Your task to perform on an android device: manage bookmarks in the chrome app Image 0: 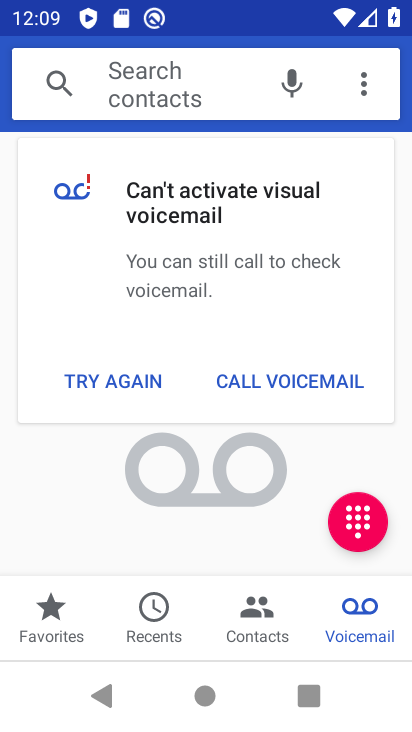
Step 0: press home button
Your task to perform on an android device: manage bookmarks in the chrome app Image 1: 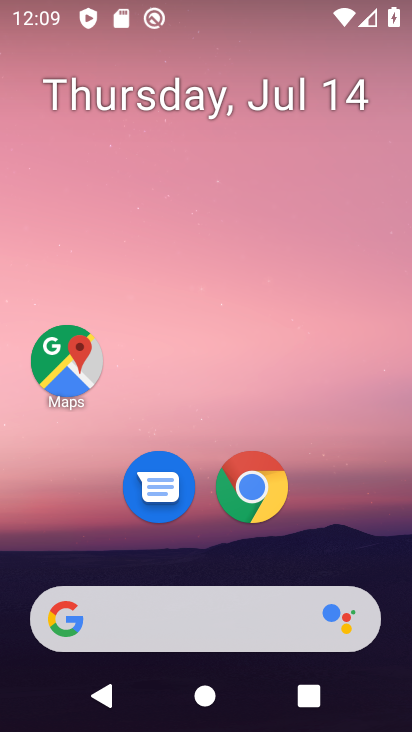
Step 1: drag from (178, 625) to (249, 2)
Your task to perform on an android device: manage bookmarks in the chrome app Image 2: 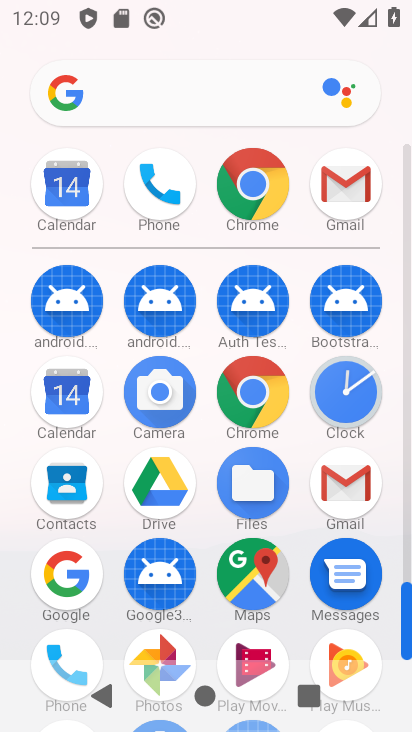
Step 2: click (249, 193)
Your task to perform on an android device: manage bookmarks in the chrome app Image 3: 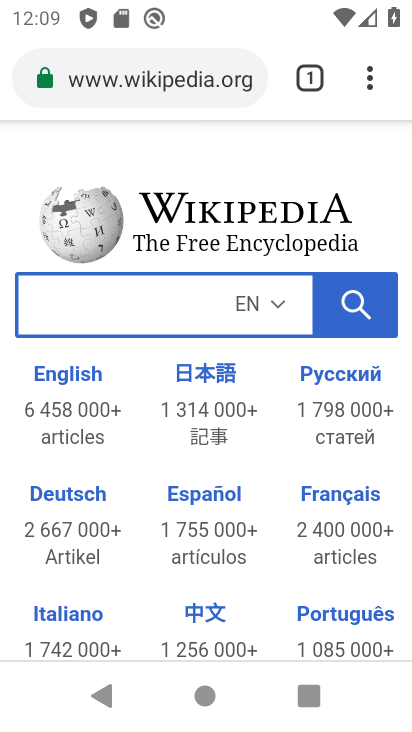
Step 3: click (370, 86)
Your task to perform on an android device: manage bookmarks in the chrome app Image 4: 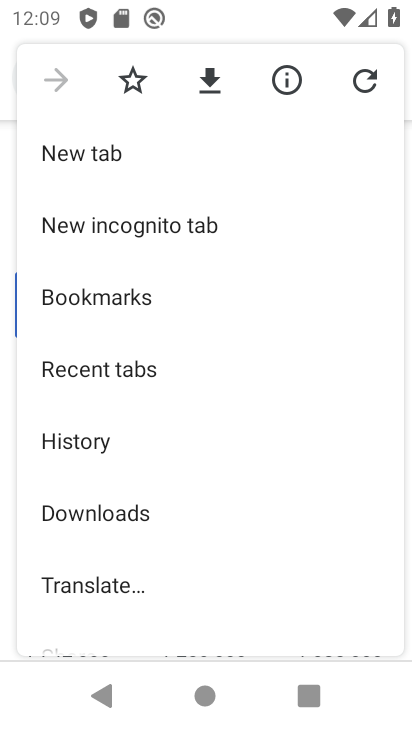
Step 4: click (121, 297)
Your task to perform on an android device: manage bookmarks in the chrome app Image 5: 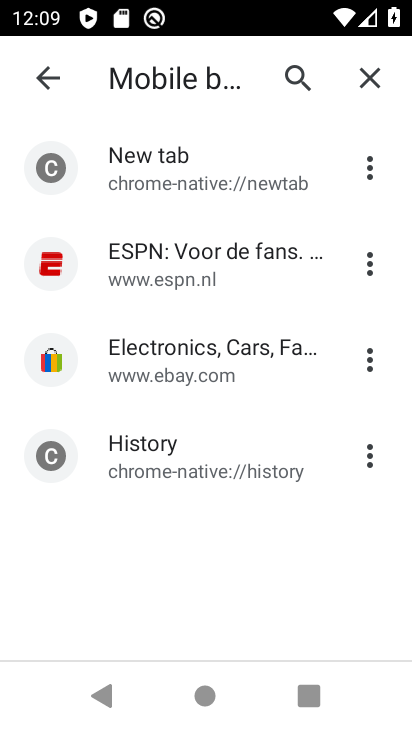
Step 5: task complete